Your task to perform on an android device: create a new album in the google photos Image 0: 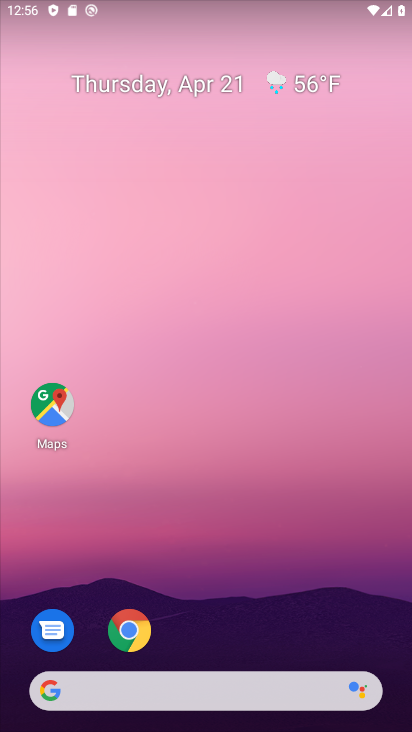
Step 0: drag from (222, 683) to (244, 129)
Your task to perform on an android device: create a new album in the google photos Image 1: 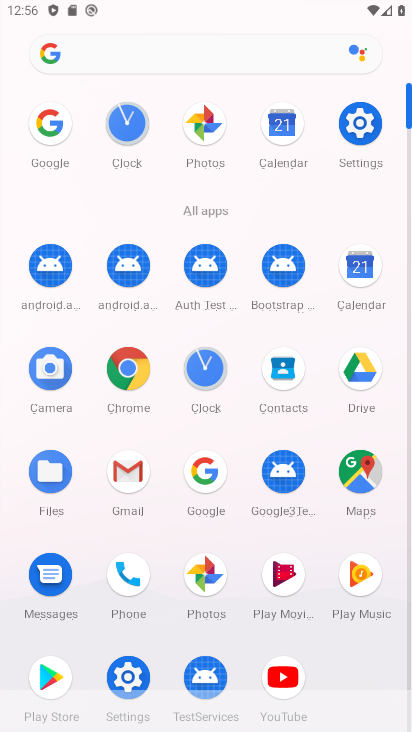
Step 1: click (203, 562)
Your task to perform on an android device: create a new album in the google photos Image 2: 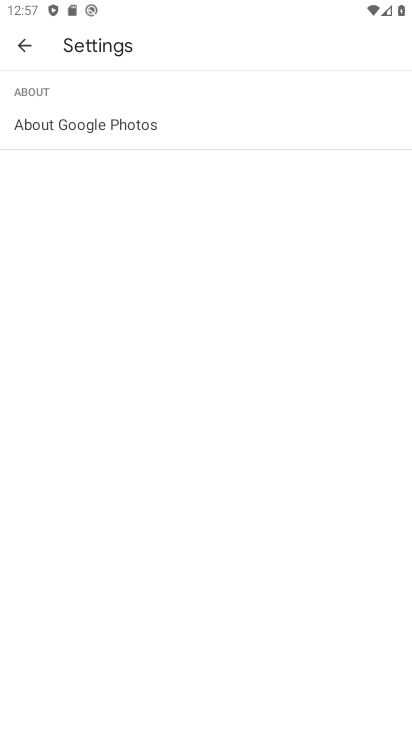
Step 2: press back button
Your task to perform on an android device: create a new album in the google photos Image 3: 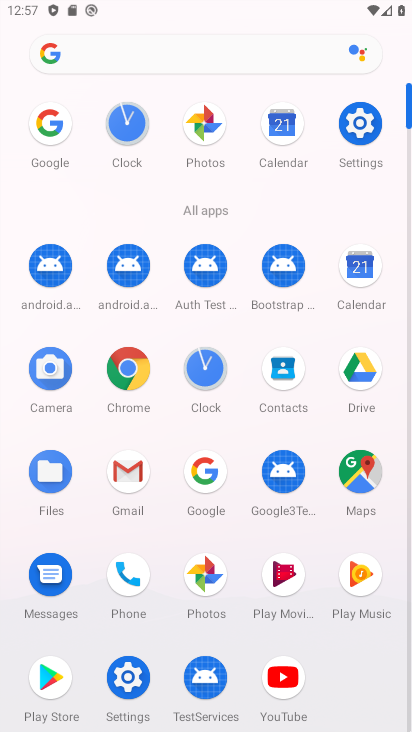
Step 3: click (204, 596)
Your task to perform on an android device: create a new album in the google photos Image 4: 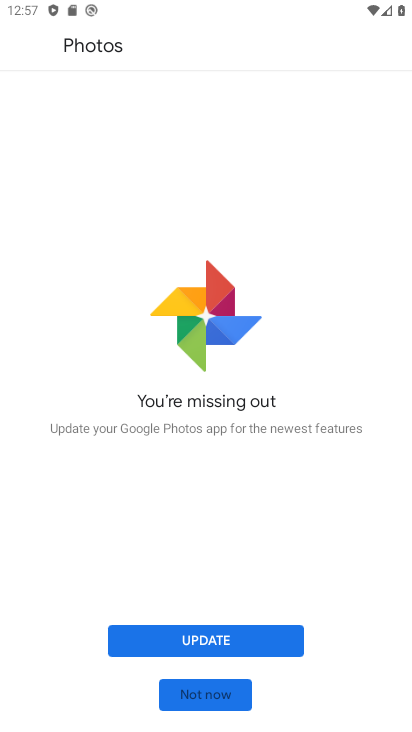
Step 4: click (218, 643)
Your task to perform on an android device: create a new album in the google photos Image 5: 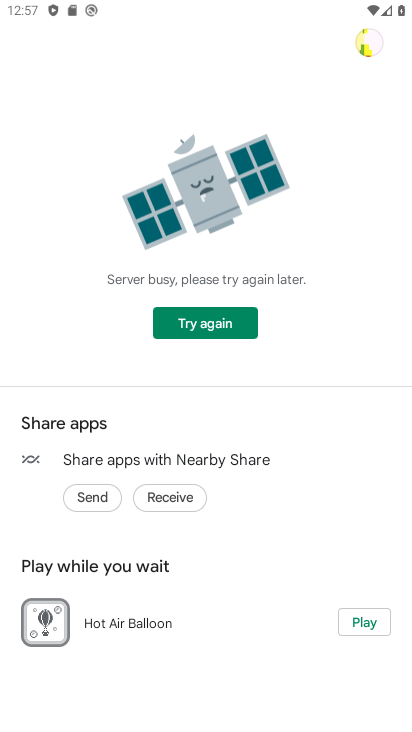
Step 5: click (219, 330)
Your task to perform on an android device: create a new album in the google photos Image 6: 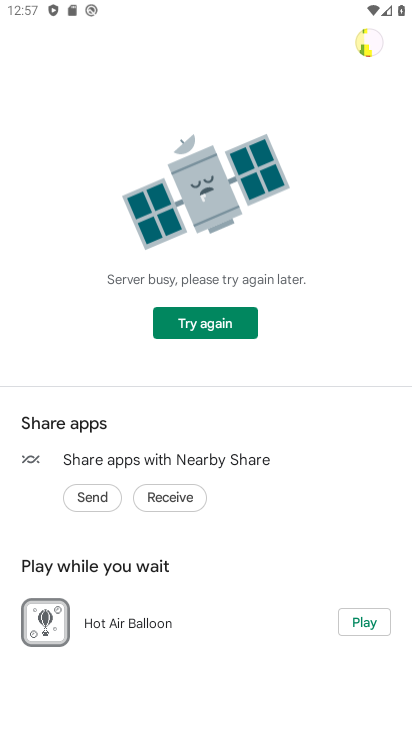
Step 6: task complete